Your task to perform on an android device: open chrome privacy settings Image 0: 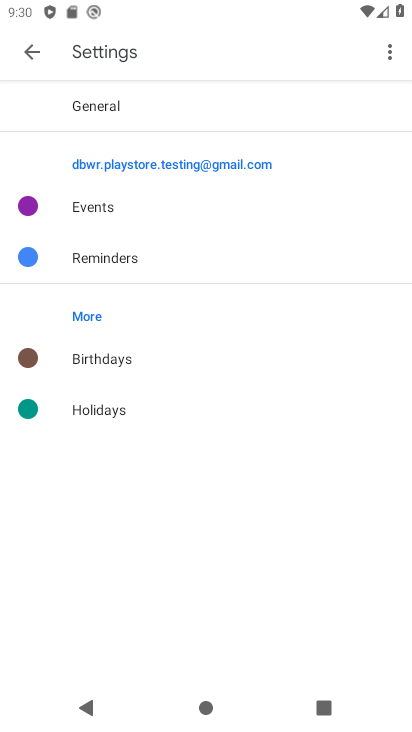
Step 0: press home button
Your task to perform on an android device: open chrome privacy settings Image 1: 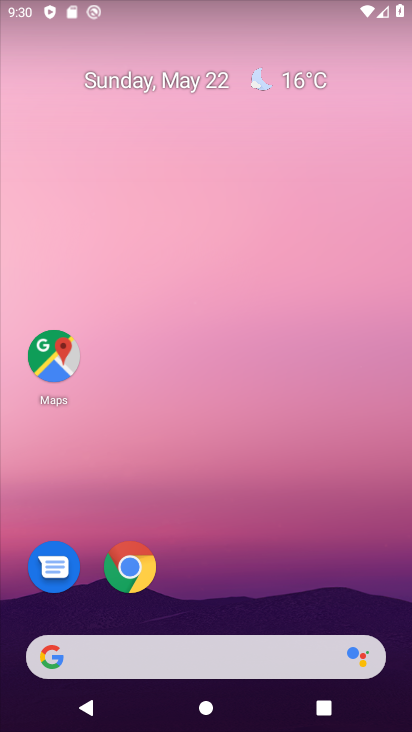
Step 1: click (145, 582)
Your task to perform on an android device: open chrome privacy settings Image 2: 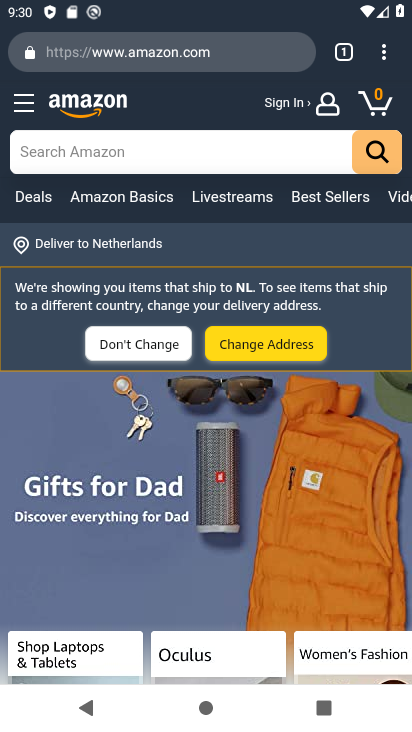
Step 2: drag from (387, 54) to (202, 621)
Your task to perform on an android device: open chrome privacy settings Image 3: 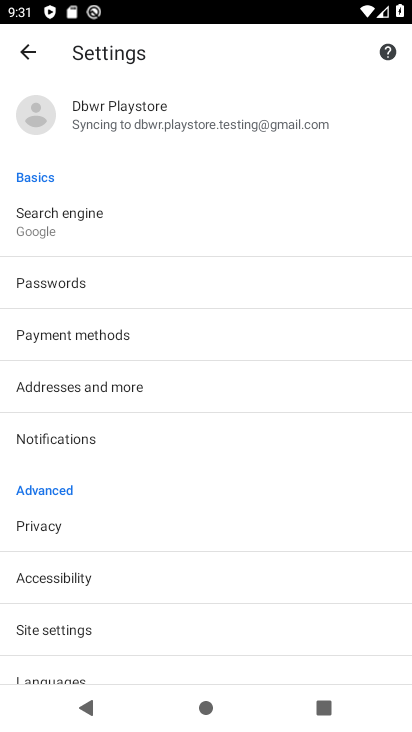
Step 3: click (33, 524)
Your task to perform on an android device: open chrome privacy settings Image 4: 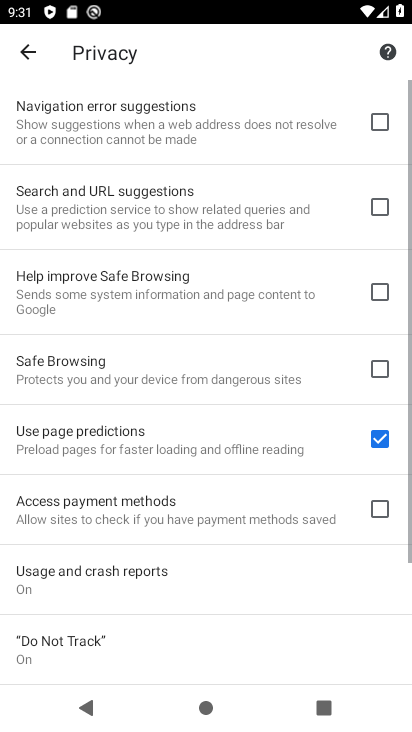
Step 4: task complete